Your task to perform on an android device: turn on data saver in the chrome app Image 0: 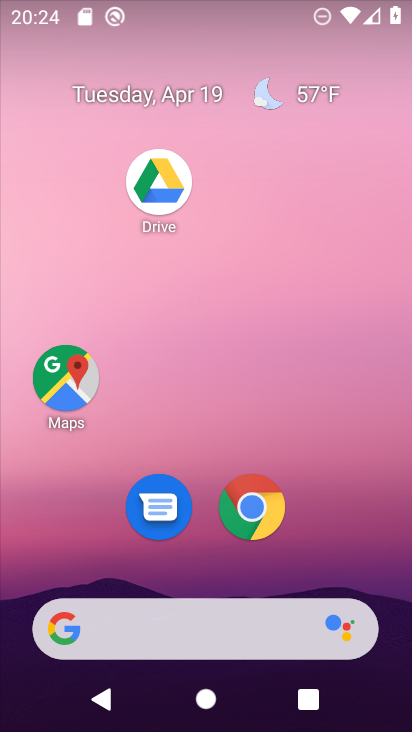
Step 0: click (249, 514)
Your task to perform on an android device: turn on data saver in the chrome app Image 1: 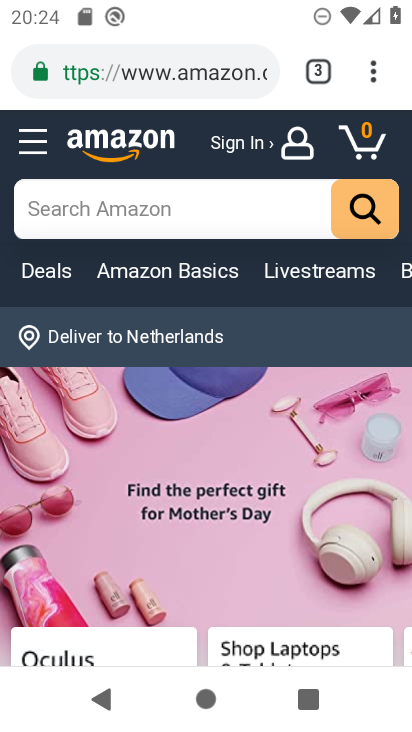
Step 1: drag from (372, 71) to (266, 497)
Your task to perform on an android device: turn on data saver in the chrome app Image 2: 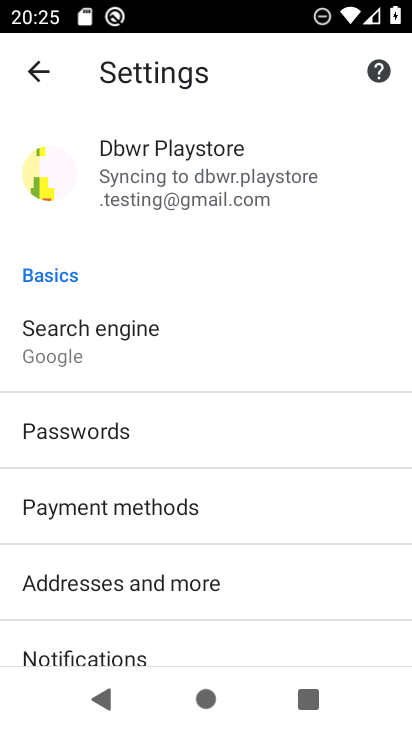
Step 2: drag from (287, 597) to (322, 213)
Your task to perform on an android device: turn on data saver in the chrome app Image 3: 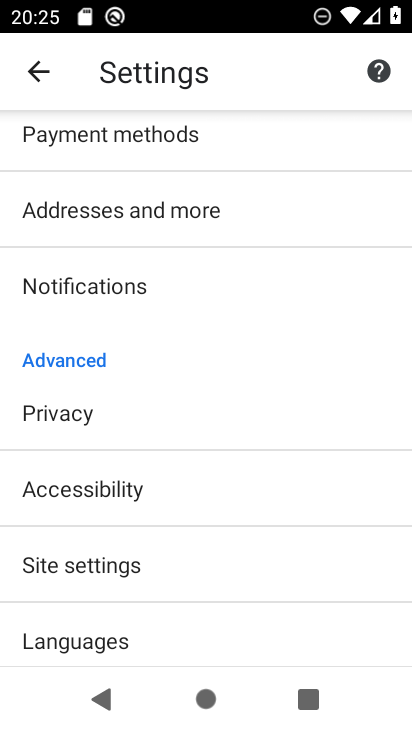
Step 3: drag from (235, 566) to (226, 248)
Your task to perform on an android device: turn on data saver in the chrome app Image 4: 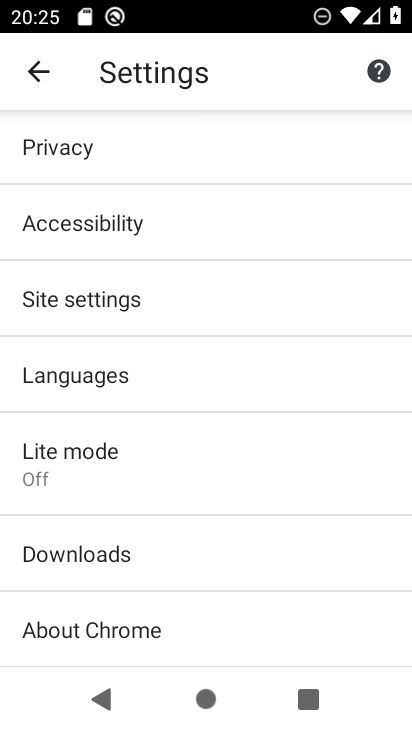
Step 4: click (162, 470)
Your task to perform on an android device: turn on data saver in the chrome app Image 5: 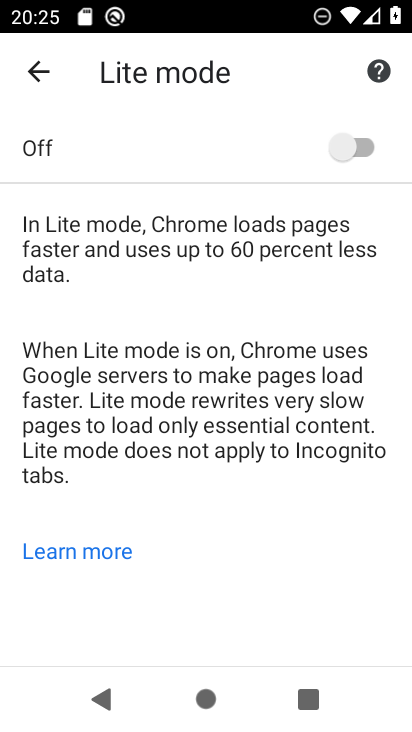
Step 5: click (351, 142)
Your task to perform on an android device: turn on data saver in the chrome app Image 6: 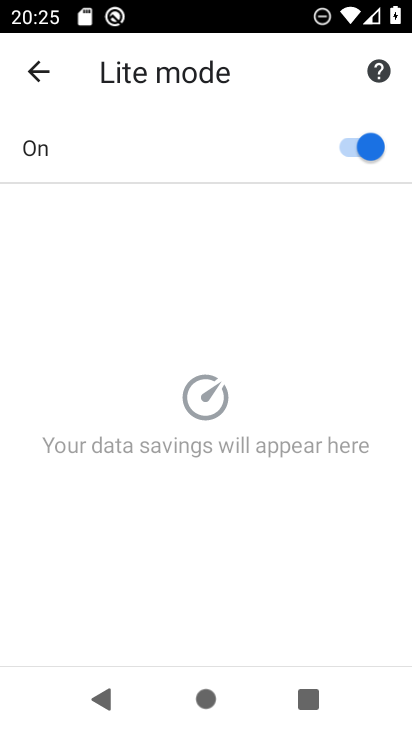
Step 6: task complete